Your task to perform on an android device: change text size in settings app Image 0: 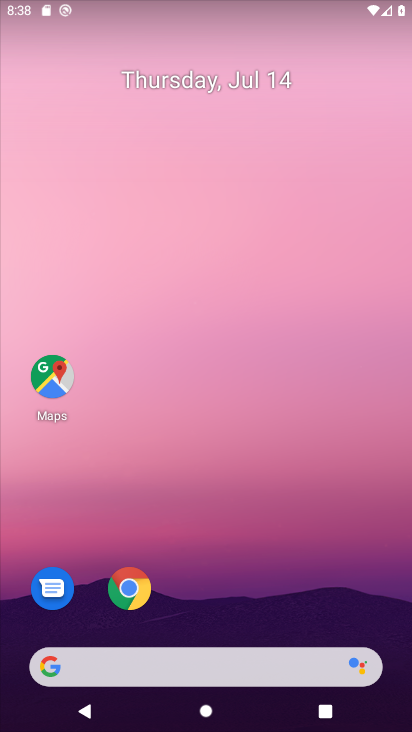
Step 0: drag from (354, 587) to (358, 237)
Your task to perform on an android device: change text size in settings app Image 1: 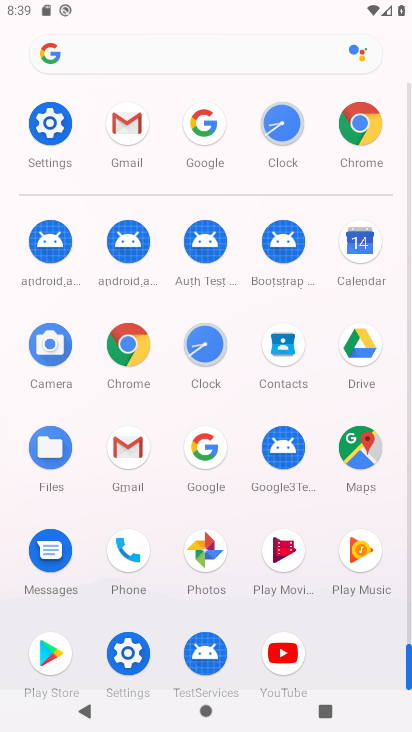
Step 1: click (56, 138)
Your task to perform on an android device: change text size in settings app Image 2: 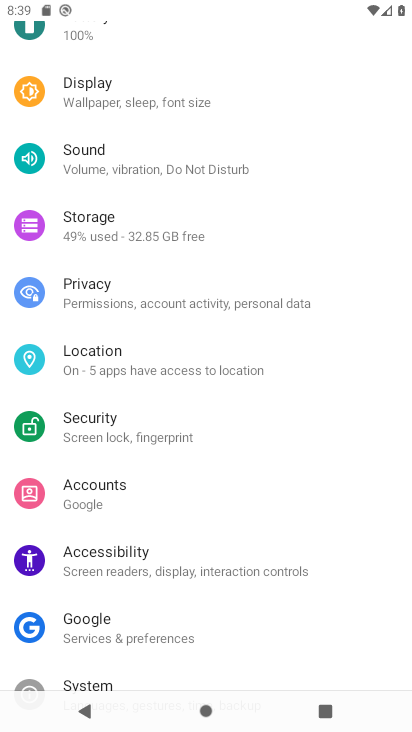
Step 2: drag from (360, 460) to (356, 235)
Your task to perform on an android device: change text size in settings app Image 3: 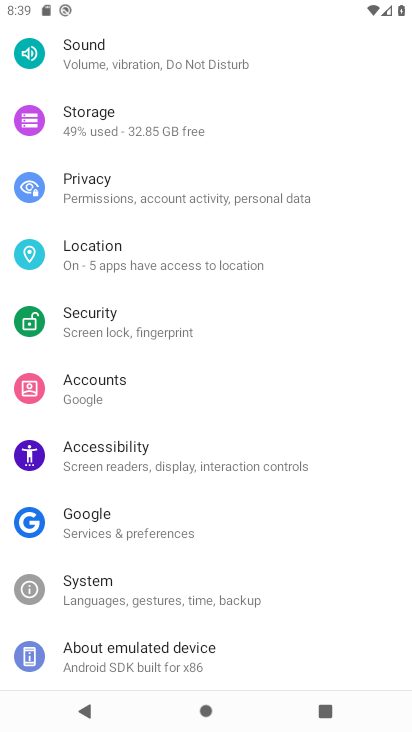
Step 3: drag from (342, 262) to (336, 335)
Your task to perform on an android device: change text size in settings app Image 4: 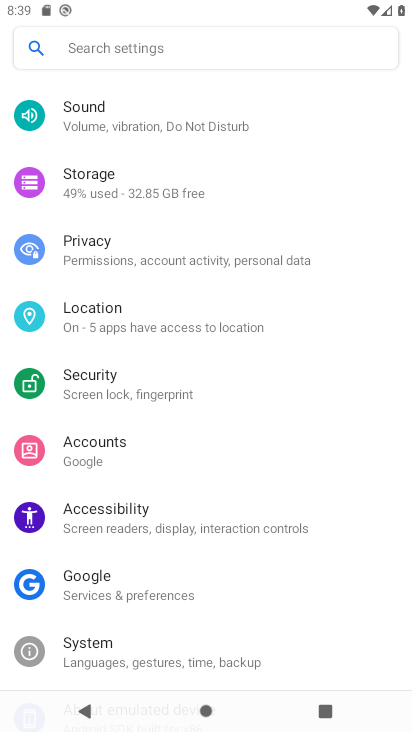
Step 4: drag from (338, 218) to (342, 334)
Your task to perform on an android device: change text size in settings app Image 5: 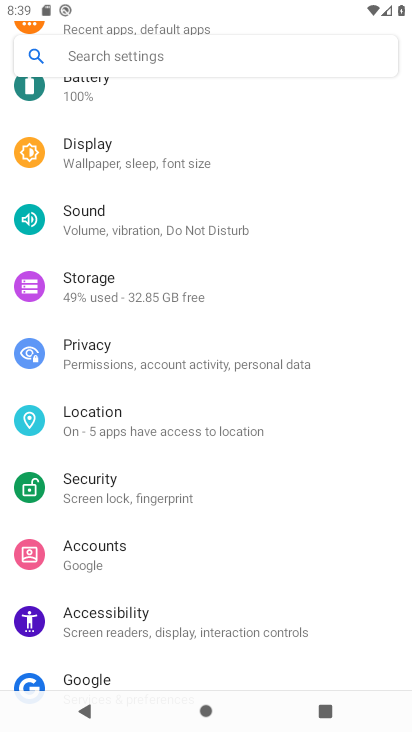
Step 5: drag from (341, 194) to (341, 292)
Your task to perform on an android device: change text size in settings app Image 6: 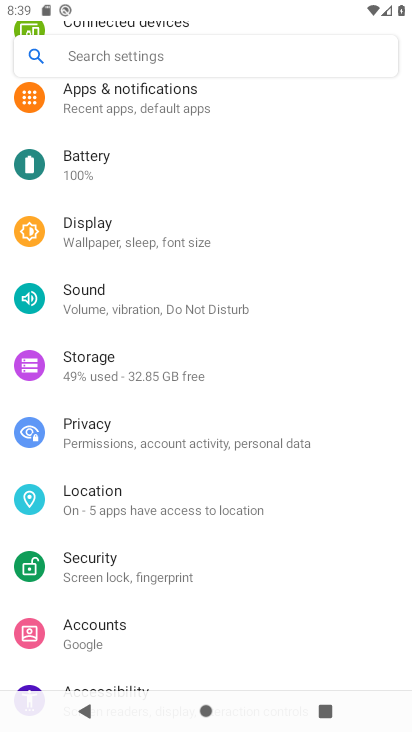
Step 6: drag from (341, 168) to (330, 310)
Your task to perform on an android device: change text size in settings app Image 7: 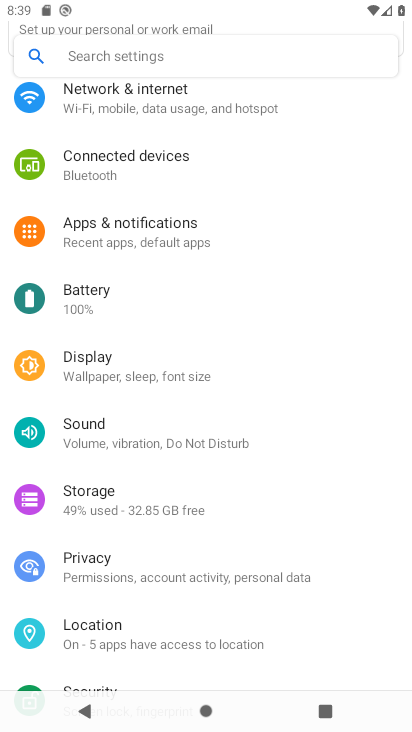
Step 7: click (228, 366)
Your task to perform on an android device: change text size in settings app Image 8: 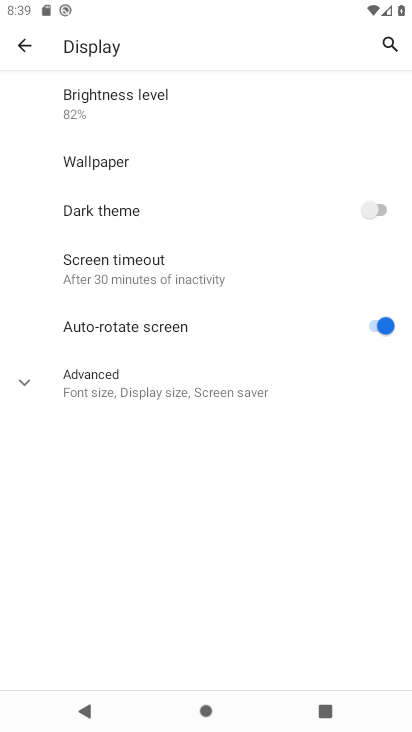
Step 8: click (150, 399)
Your task to perform on an android device: change text size in settings app Image 9: 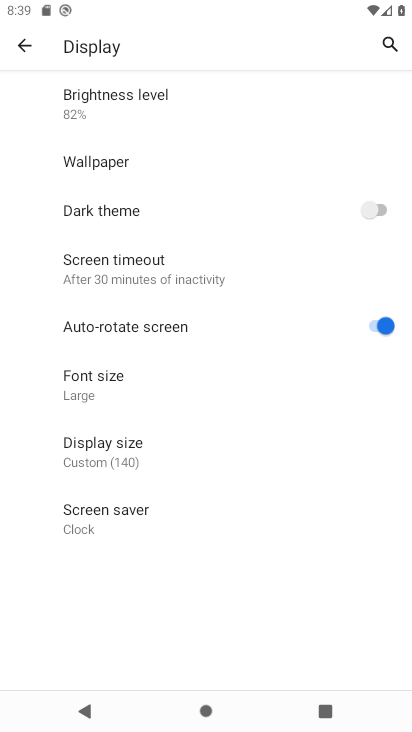
Step 9: click (150, 400)
Your task to perform on an android device: change text size in settings app Image 10: 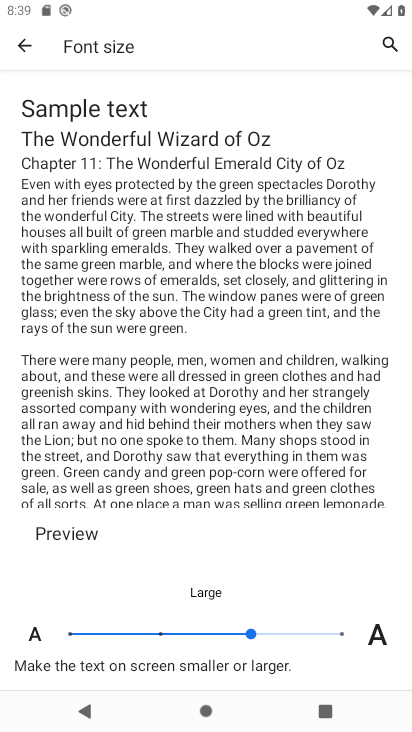
Step 10: click (345, 637)
Your task to perform on an android device: change text size in settings app Image 11: 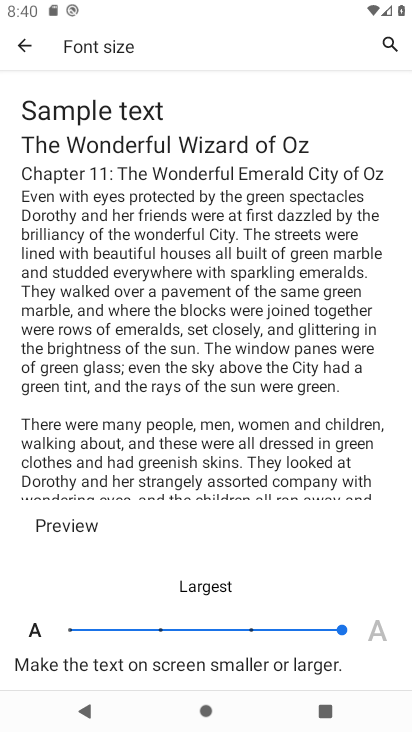
Step 11: task complete